Your task to perform on an android device: toggle improve location accuracy Image 0: 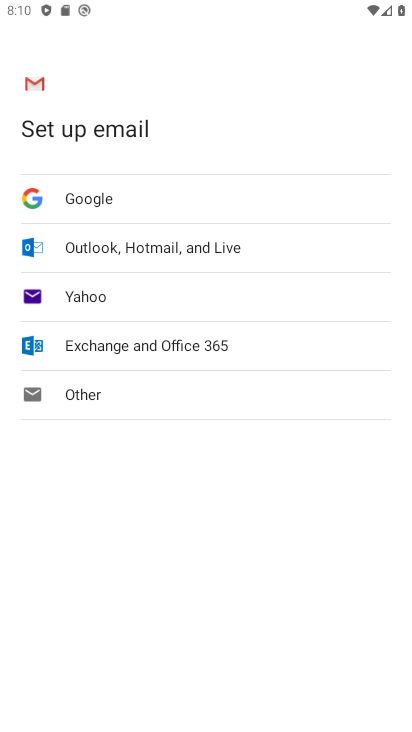
Step 0: press home button
Your task to perform on an android device: toggle improve location accuracy Image 1: 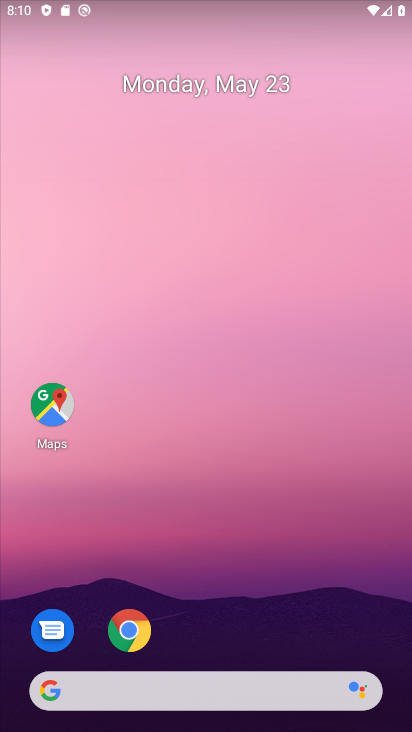
Step 1: drag from (238, 610) to (187, 61)
Your task to perform on an android device: toggle improve location accuracy Image 2: 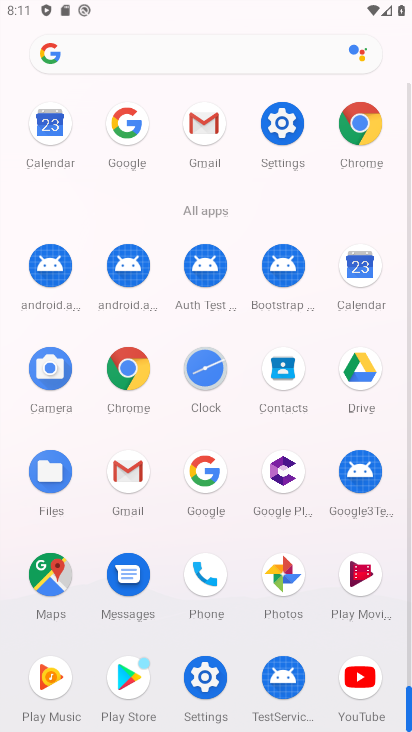
Step 2: click (275, 125)
Your task to perform on an android device: toggle improve location accuracy Image 3: 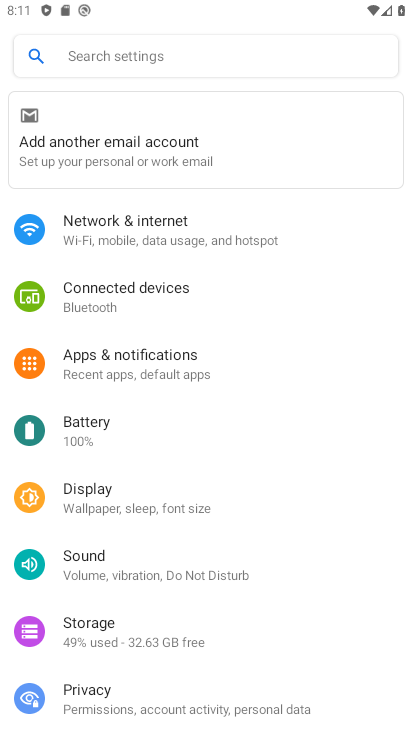
Step 3: drag from (93, 647) to (87, 338)
Your task to perform on an android device: toggle improve location accuracy Image 4: 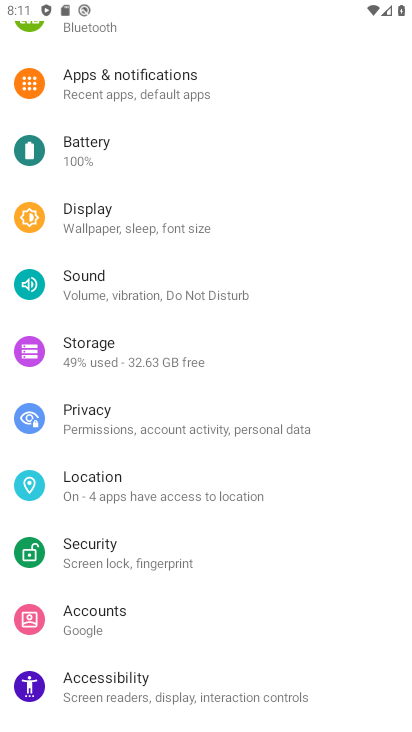
Step 4: click (121, 502)
Your task to perform on an android device: toggle improve location accuracy Image 5: 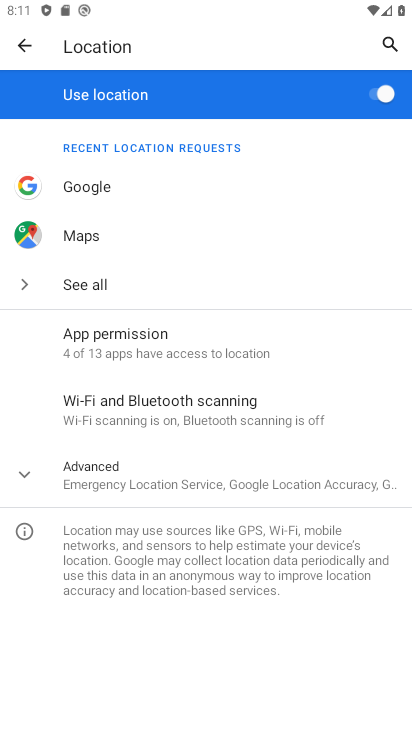
Step 5: click (94, 475)
Your task to perform on an android device: toggle improve location accuracy Image 6: 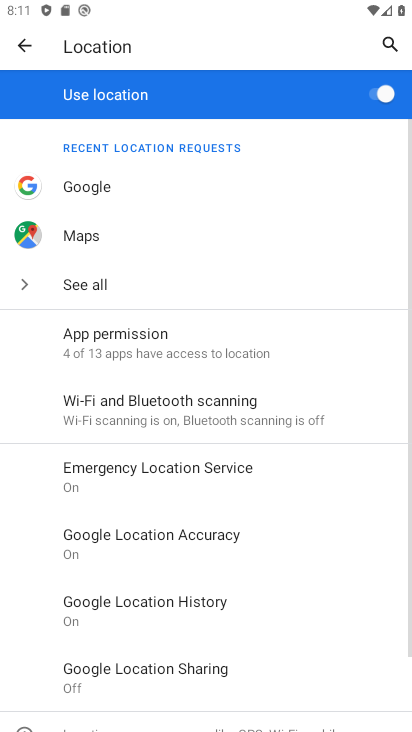
Step 6: click (207, 538)
Your task to perform on an android device: toggle improve location accuracy Image 7: 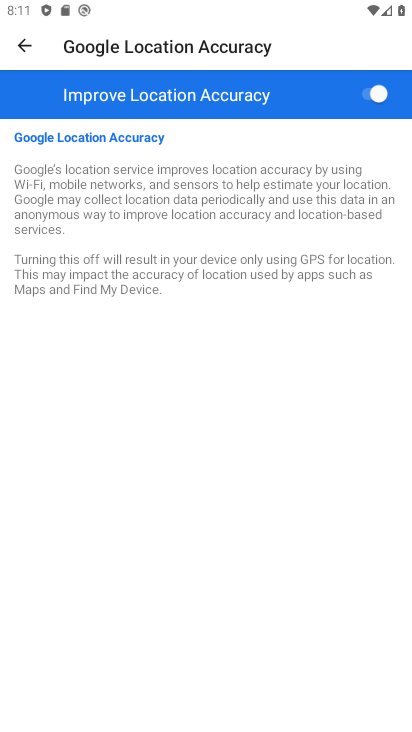
Step 7: click (370, 97)
Your task to perform on an android device: toggle improve location accuracy Image 8: 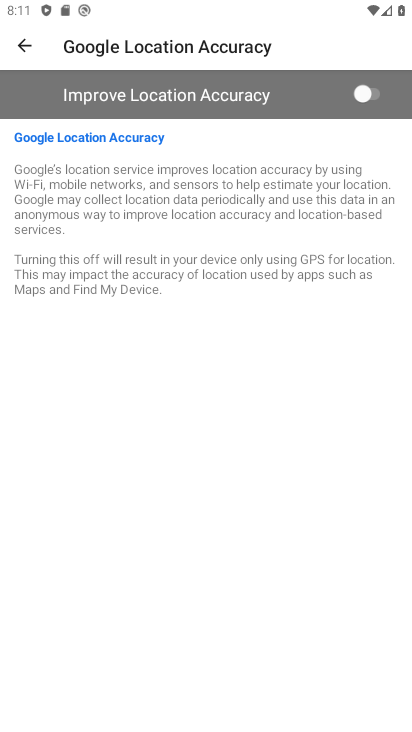
Step 8: task complete